Your task to perform on an android device: Show me popular videos on Youtube Image 0: 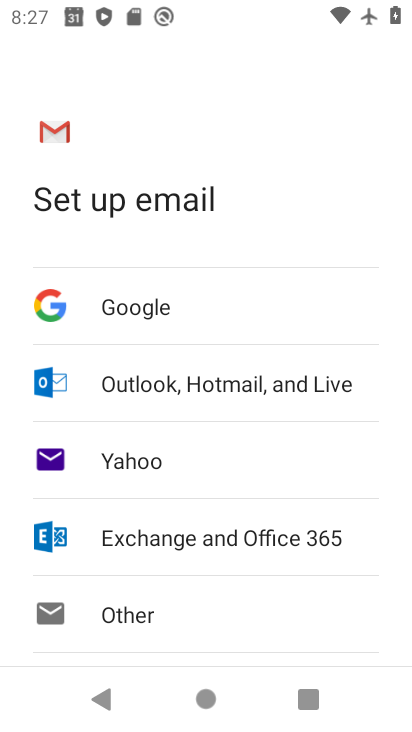
Step 0: press home button
Your task to perform on an android device: Show me popular videos on Youtube Image 1: 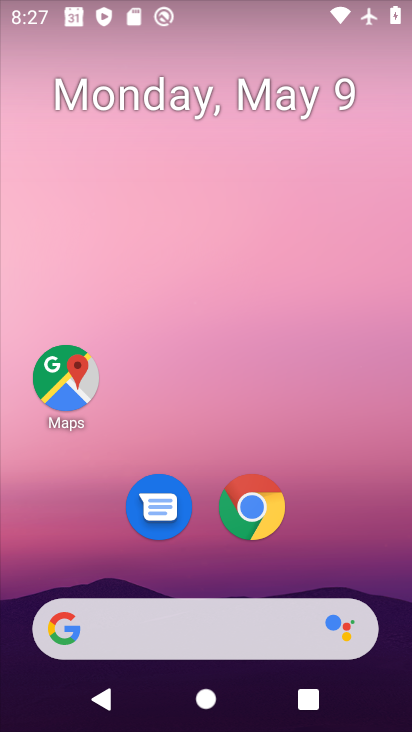
Step 1: drag from (221, 575) to (346, 19)
Your task to perform on an android device: Show me popular videos on Youtube Image 2: 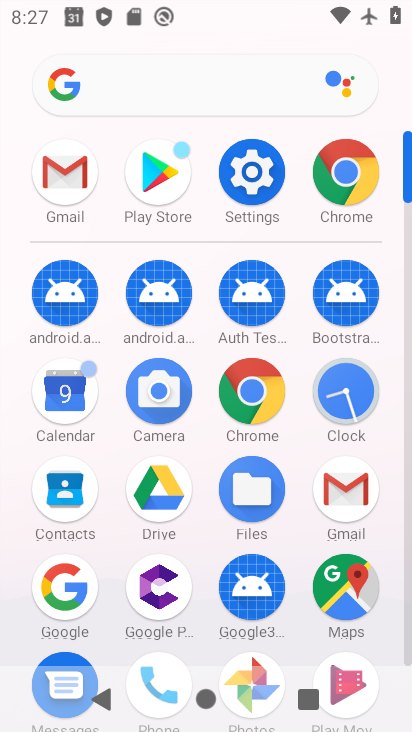
Step 2: drag from (200, 641) to (174, 84)
Your task to perform on an android device: Show me popular videos on Youtube Image 3: 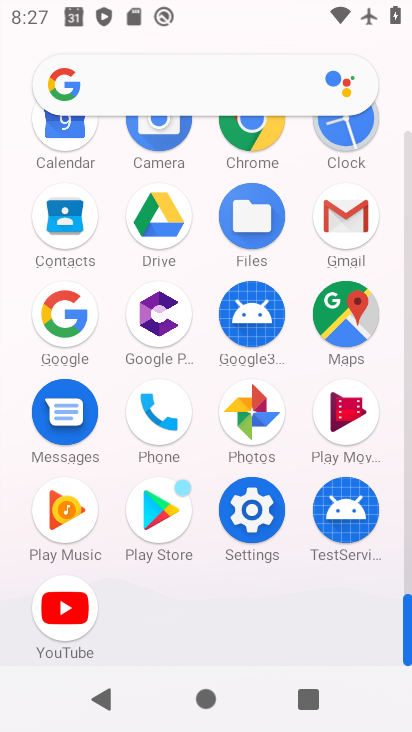
Step 3: click (67, 596)
Your task to perform on an android device: Show me popular videos on Youtube Image 4: 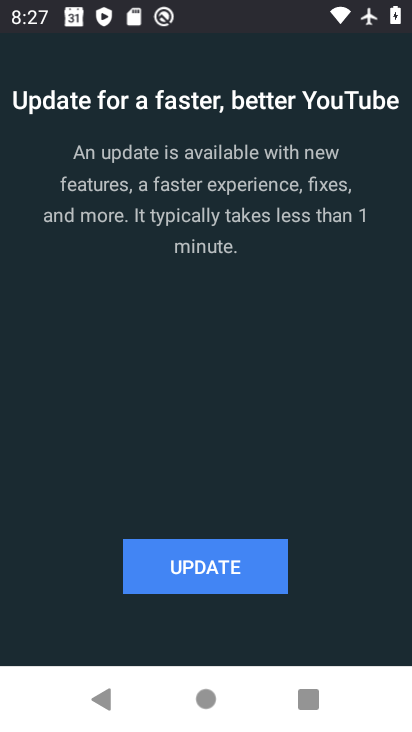
Step 4: click (230, 568)
Your task to perform on an android device: Show me popular videos on Youtube Image 5: 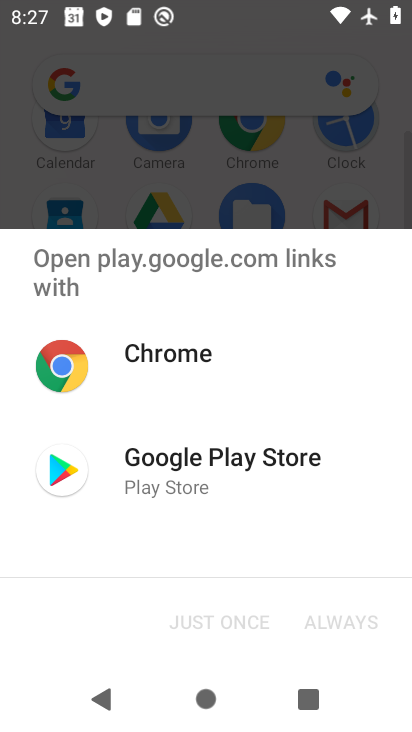
Step 5: drag from (202, 498) to (291, 498)
Your task to perform on an android device: Show me popular videos on Youtube Image 6: 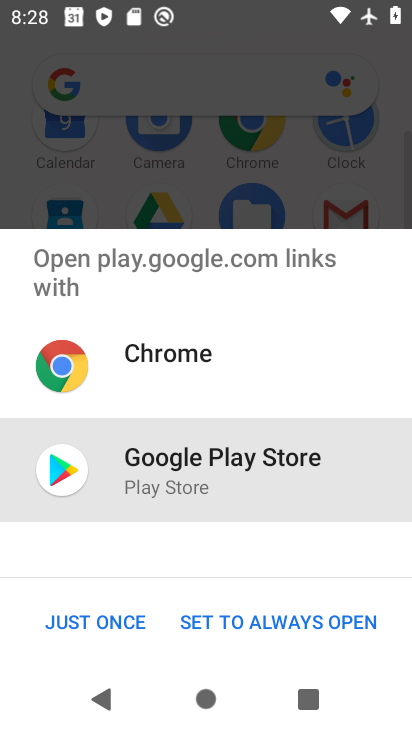
Step 6: click (81, 626)
Your task to perform on an android device: Show me popular videos on Youtube Image 7: 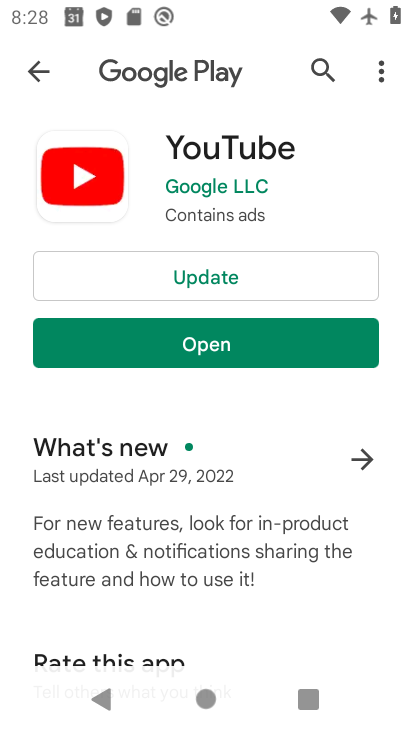
Step 7: click (148, 267)
Your task to perform on an android device: Show me popular videos on Youtube Image 8: 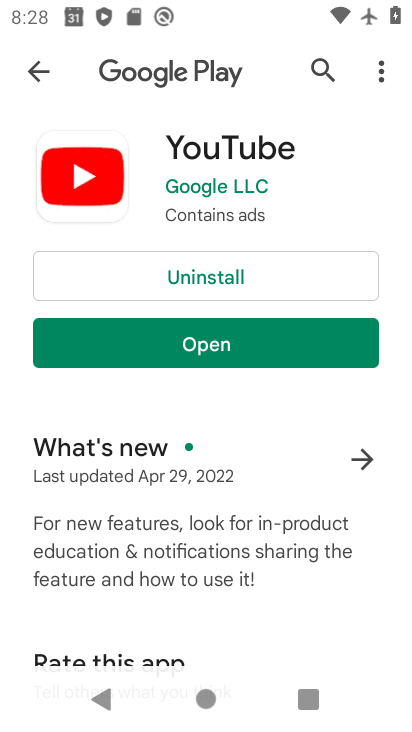
Step 8: click (204, 368)
Your task to perform on an android device: Show me popular videos on Youtube Image 9: 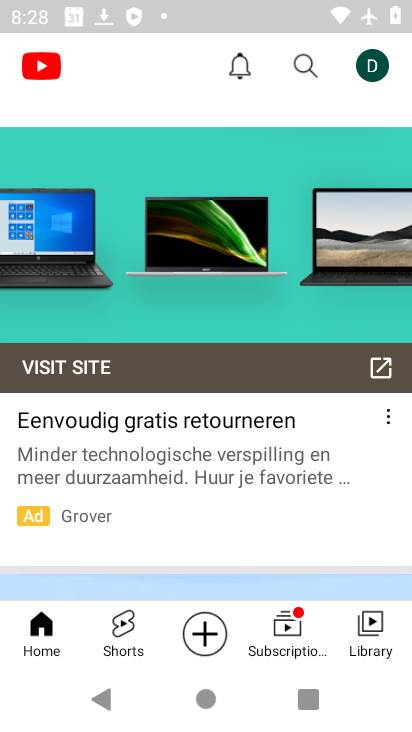
Step 9: click (332, 67)
Your task to perform on an android device: Show me popular videos on Youtube Image 10: 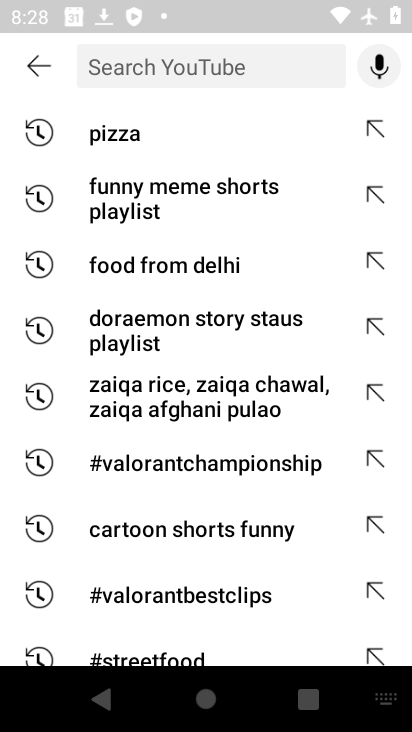
Step 10: click (59, 53)
Your task to perform on an android device: Show me popular videos on Youtube Image 11: 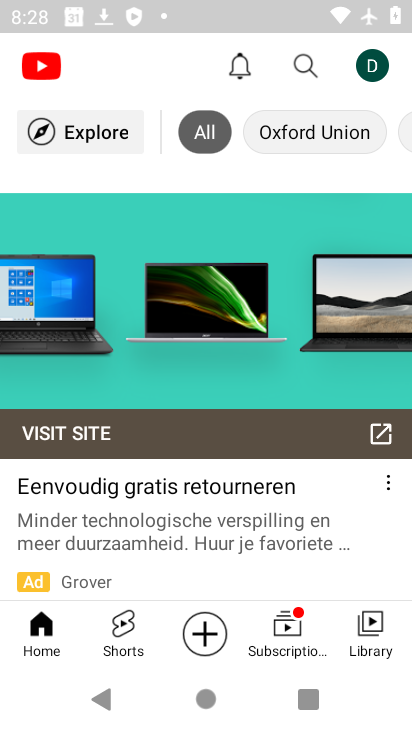
Step 11: click (360, 641)
Your task to perform on an android device: Show me popular videos on Youtube Image 12: 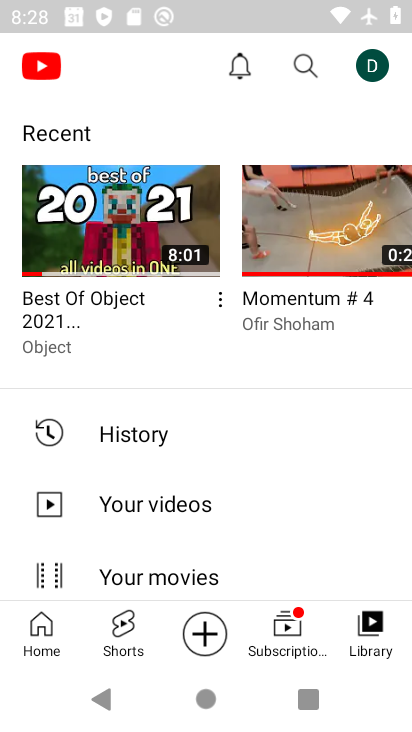
Step 12: drag from (342, 567) to (345, 64)
Your task to perform on an android device: Show me popular videos on Youtube Image 13: 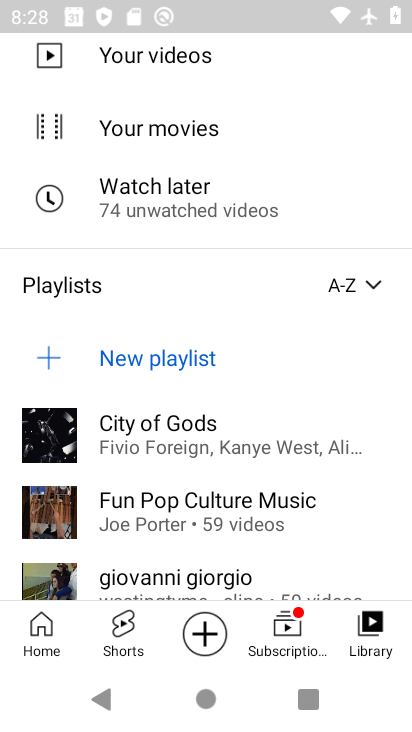
Step 13: drag from (264, 453) to (271, 62)
Your task to perform on an android device: Show me popular videos on Youtube Image 14: 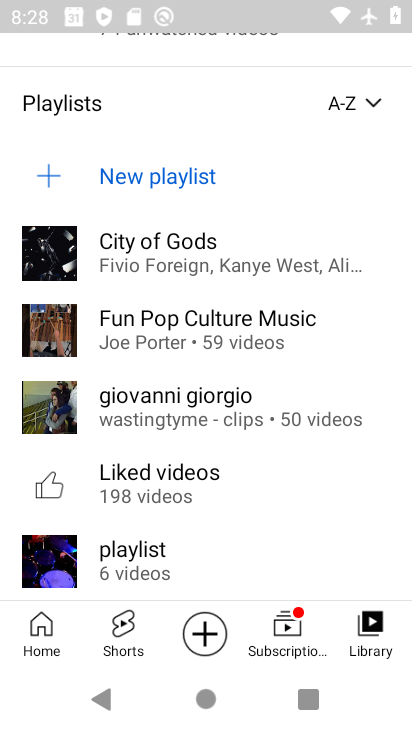
Step 14: click (308, 629)
Your task to perform on an android device: Show me popular videos on Youtube Image 15: 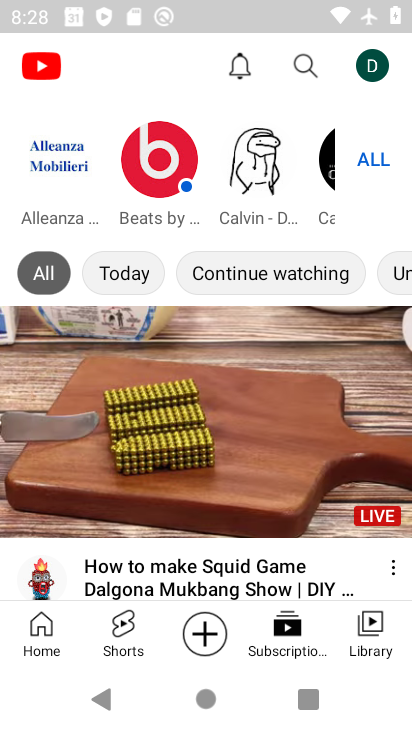
Step 15: click (128, 644)
Your task to perform on an android device: Show me popular videos on Youtube Image 16: 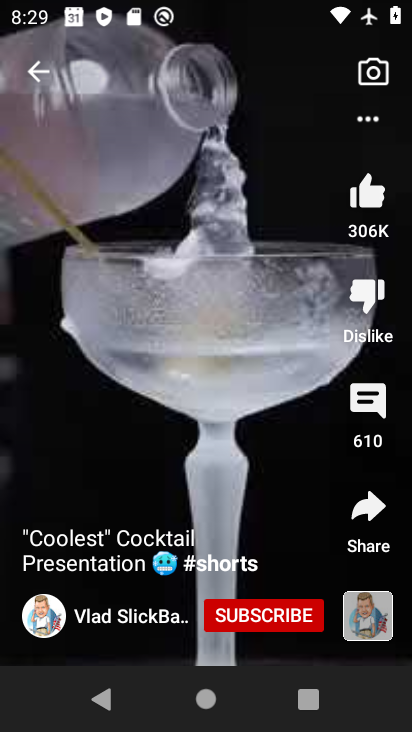
Step 16: click (93, 699)
Your task to perform on an android device: Show me popular videos on Youtube Image 17: 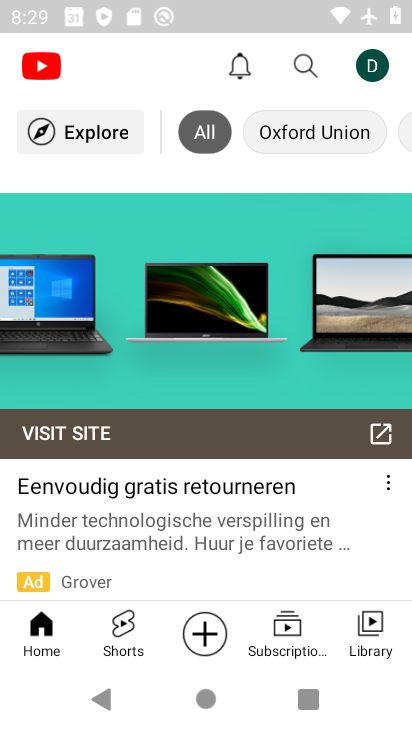
Step 17: task complete